Your task to perform on an android device: Open Yahoo.com Image 0: 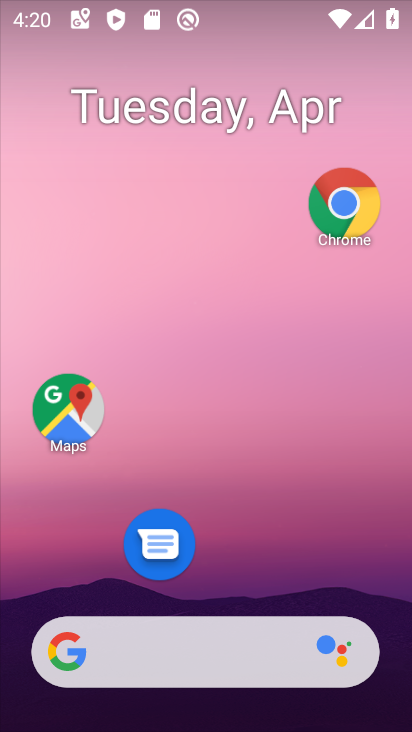
Step 0: click (367, 194)
Your task to perform on an android device: Open Yahoo.com Image 1: 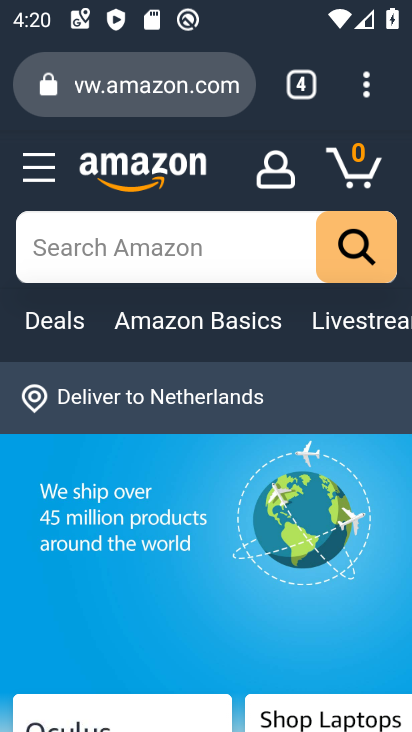
Step 1: click (174, 90)
Your task to perform on an android device: Open Yahoo.com Image 2: 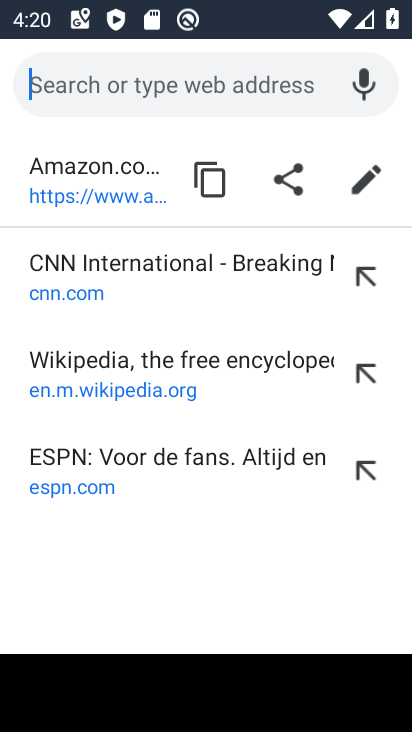
Step 2: type "yahoo.com"
Your task to perform on an android device: Open Yahoo.com Image 3: 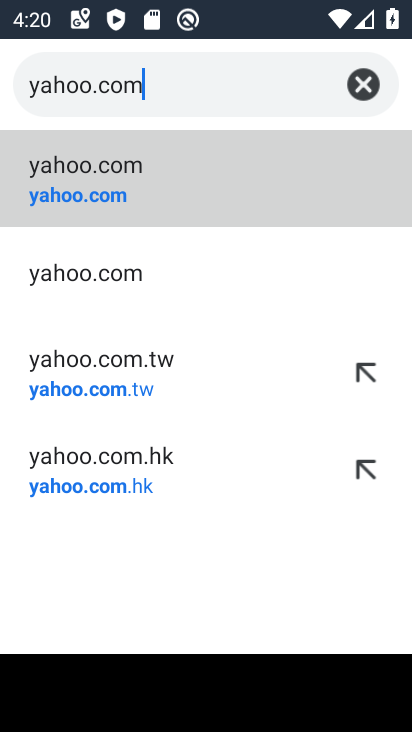
Step 3: click (63, 176)
Your task to perform on an android device: Open Yahoo.com Image 4: 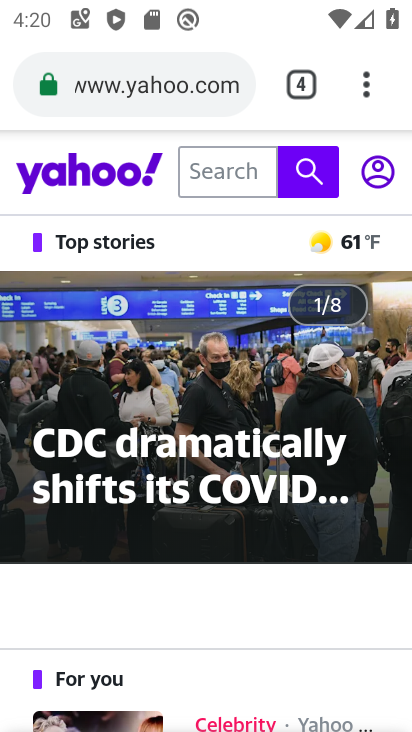
Step 4: task complete